Your task to perform on an android device: turn on the 24-hour format for clock Image 0: 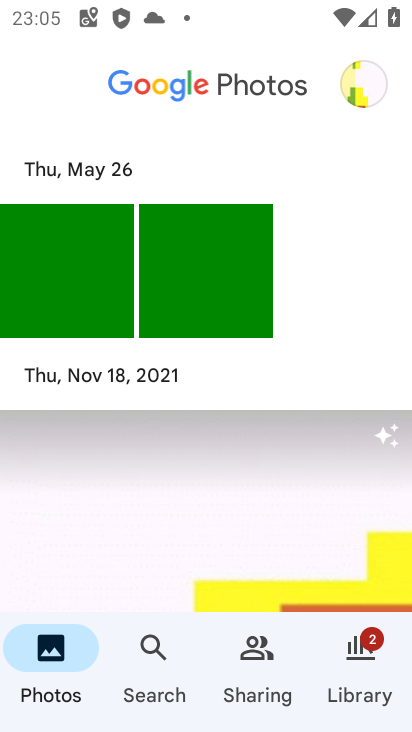
Step 0: press home button
Your task to perform on an android device: turn on the 24-hour format for clock Image 1: 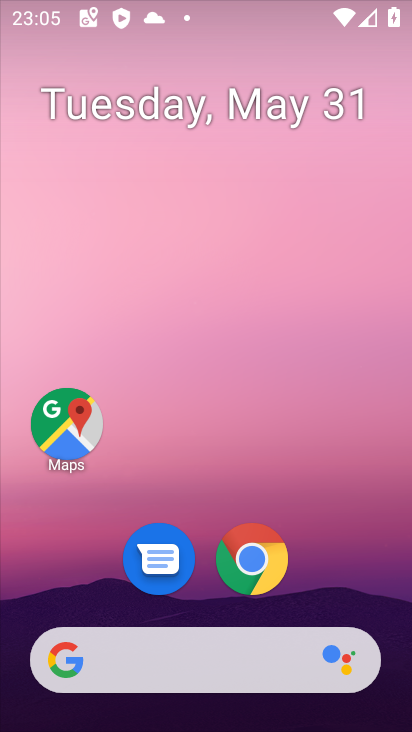
Step 1: drag from (334, 579) to (319, 81)
Your task to perform on an android device: turn on the 24-hour format for clock Image 2: 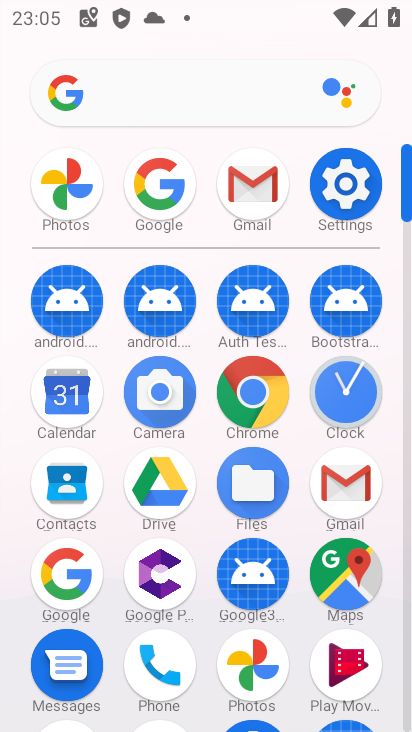
Step 2: click (347, 401)
Your task to perform on an android device: turn on the 24-hour format for clock Image 3: 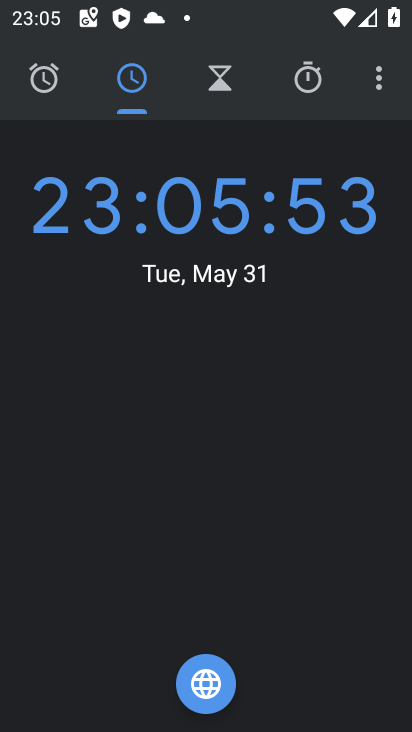
Step 3: click (371, 84)
Your task to perform on an android device: turn on the 24-hour format for clock Image 4: 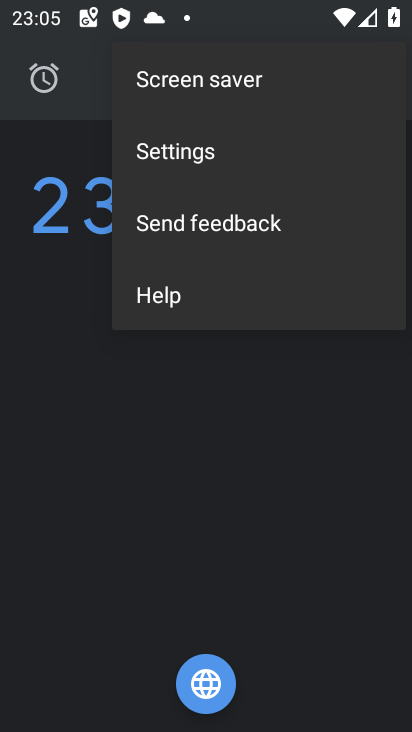
Step 4: click (181, 149)
Your task to perform on an android device: turn on the 24-hour format for clock Image 5: 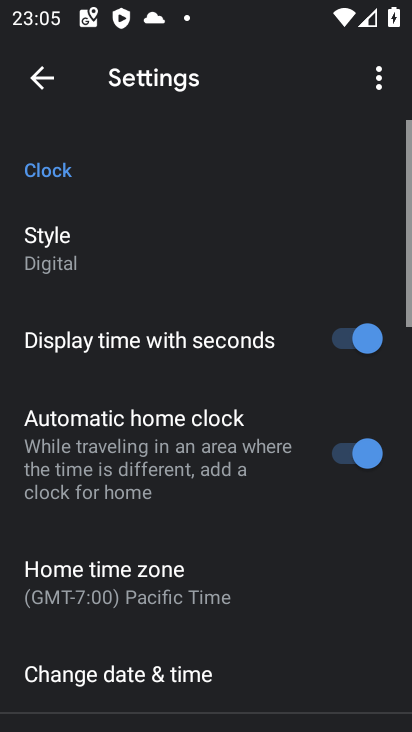
Step 5: drag from (237, 585) to (260, 410)
Your task to perform on an android device: turn on the 24-hour format for clock Image 6: 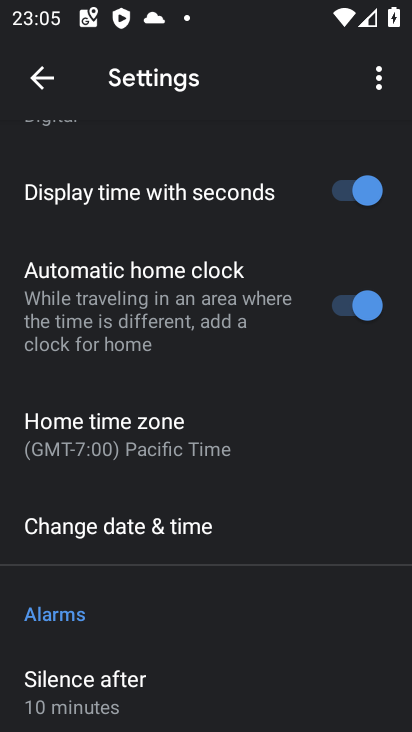
Step 6: click (157, 513)
Your task to perform on an android device: turn on the 24-hour format for clock Image 7: 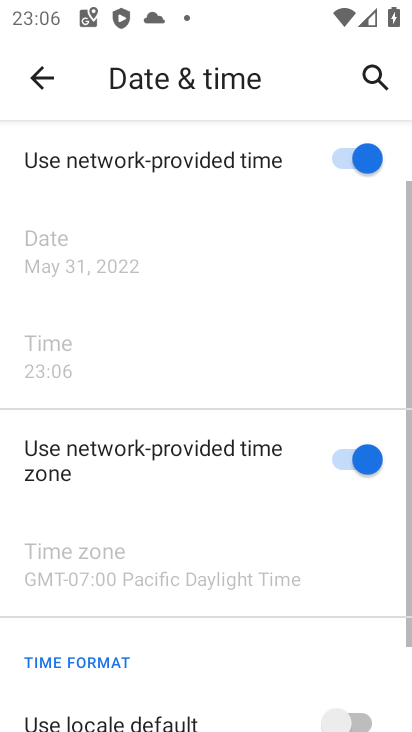
Step 7: task complete